Your task to perform on an android device: Go to Android settings Image 0: 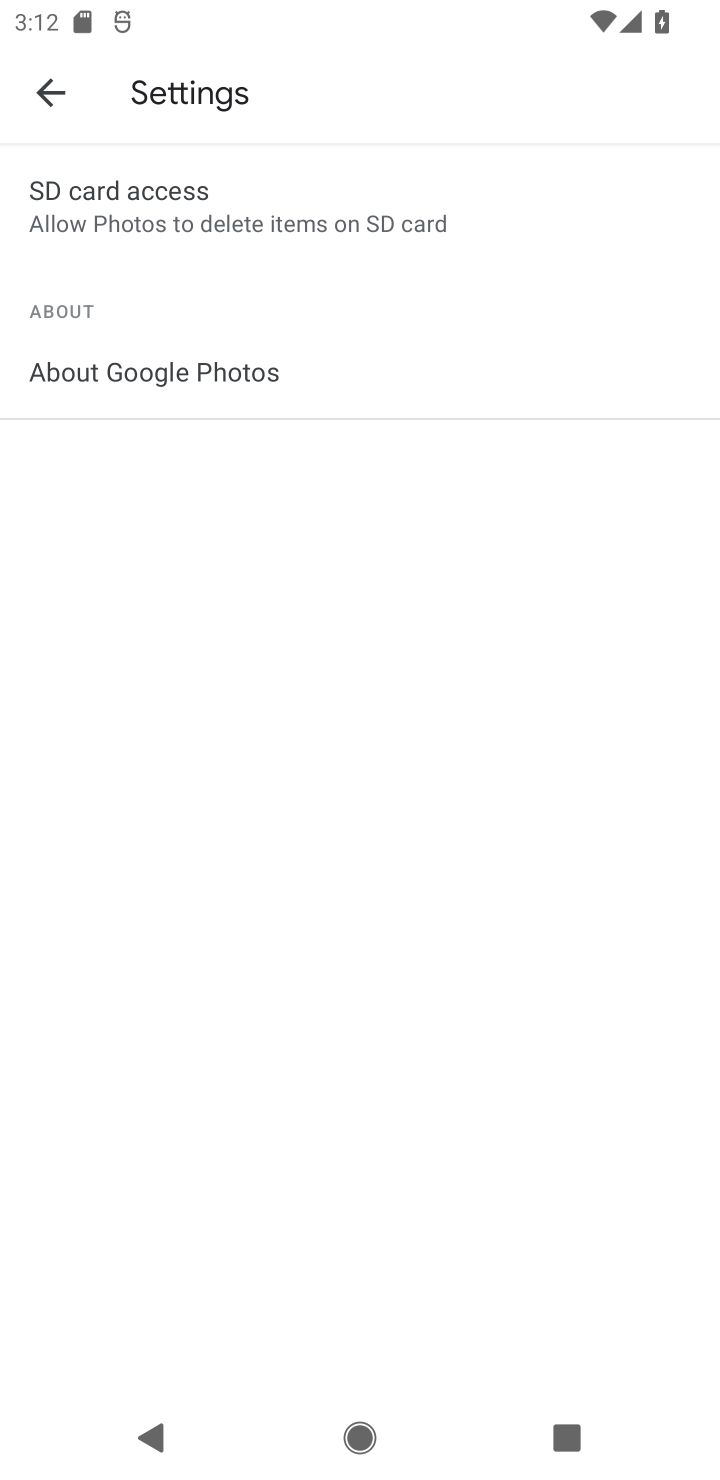
Step 0: task complete